Your task to perform on an android device: change alarm snooze length Image 0: 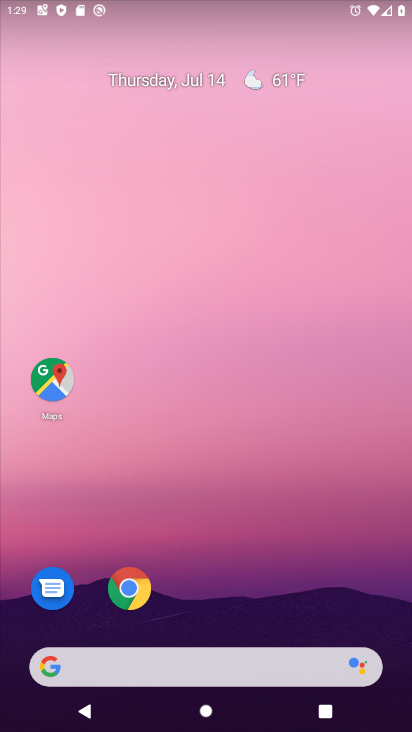
Step 0: drag from (287, 643) to (313, 185)
Your task to perform on an android device: change alarm snooze length Image 1: 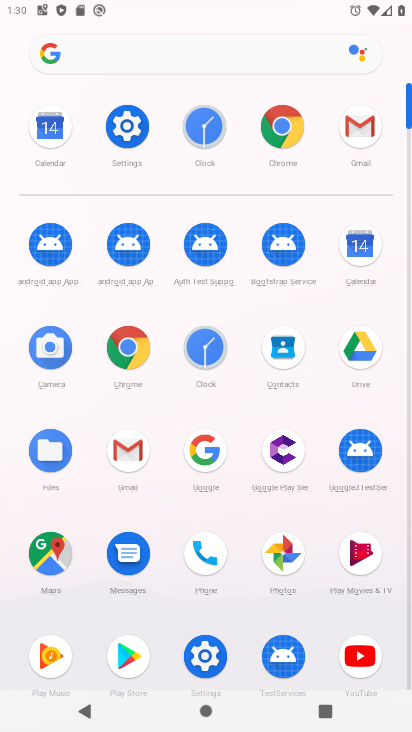
Step 1: click (211, 350)
Your task to perform on an android device: change alarm snooze length Image 2: 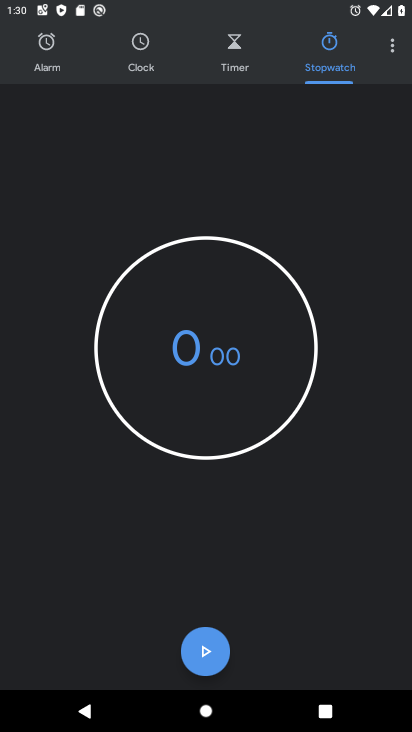
Step 2: click (395, 40)
Your task to perform on an android device: change alarm snooze length Image 3: 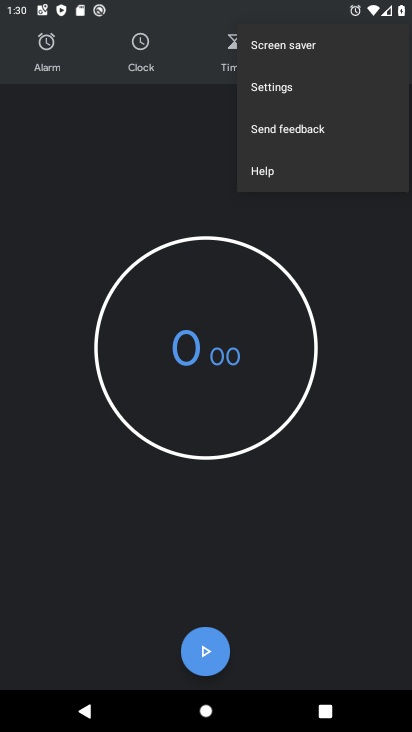
Step 3: click (301, 93)
Your task to perform on an android device: change alarm snooze length Image 4: 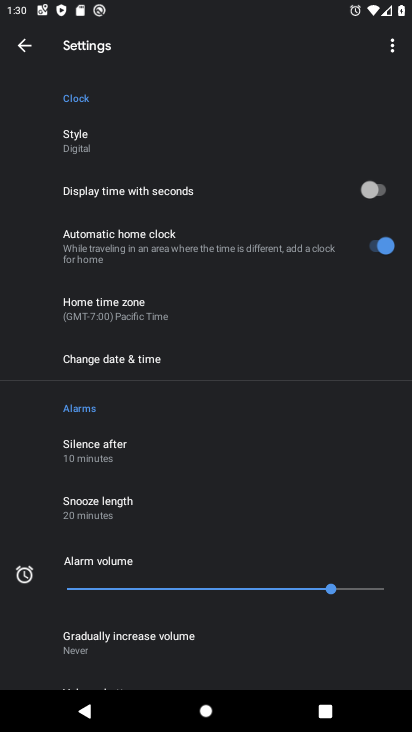
Step 4: click (127, 513)
Your task to perform on an android device: change alarm snooze length Image 5: 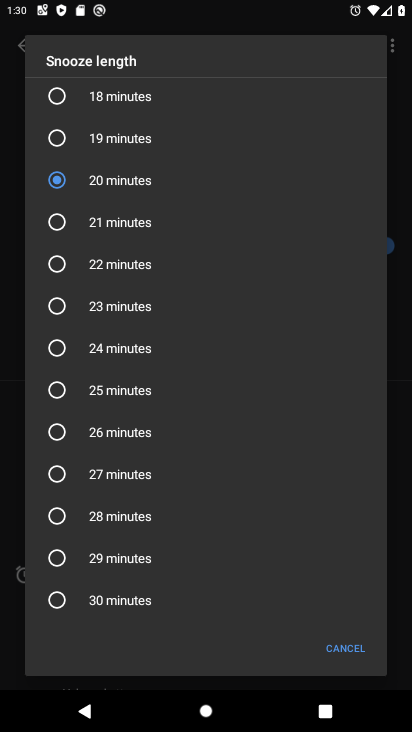
Step 5: click (103, 515)
Your task to perform on an android device: change alarm snooze length Image 6: 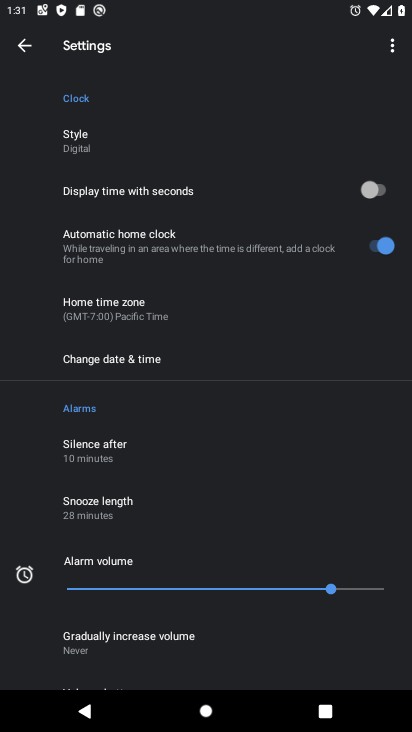
Step 6: task complete